Your task to perform on an android device: turn vacation reply on in the gmail app Image 0: 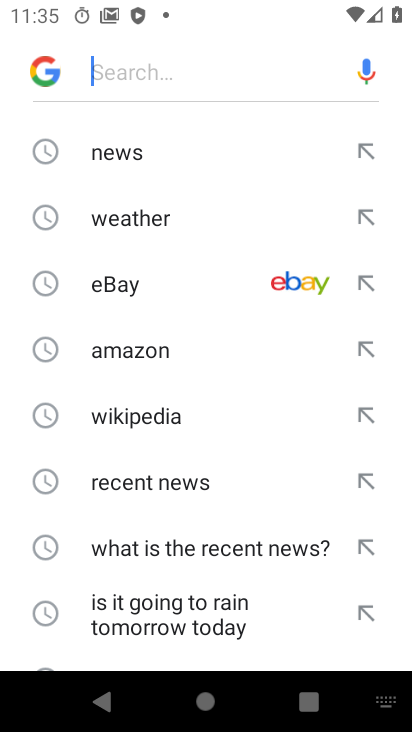
Step 0: press home button
Your task to perform on an android device: turn vacation reply on in the gmail app Image 1: 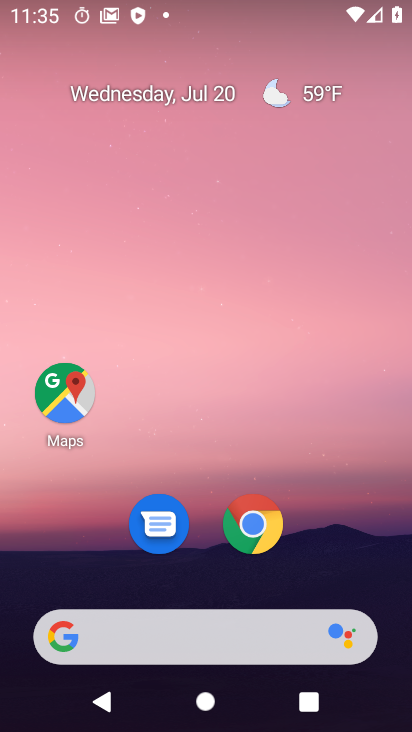
Step 1: drag from (225, 606) to (336, 130)
Your task to perform on an android device: turn vacation reply on in the gmail app Image 2: 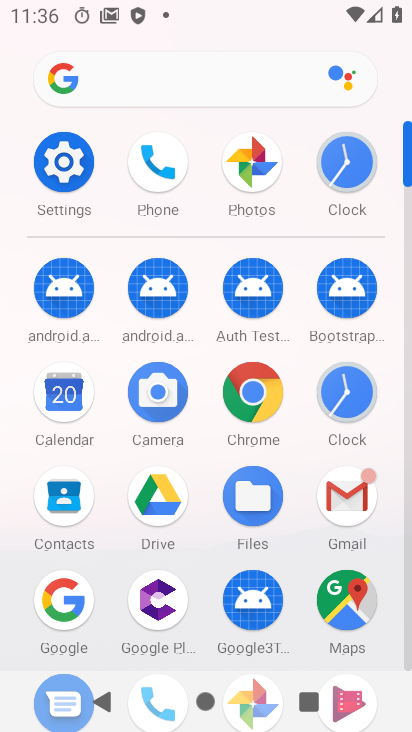
Step 2: click (351, 492)
Your task to perform on an android device: turn vacation reply on in the gmail app Image 3: 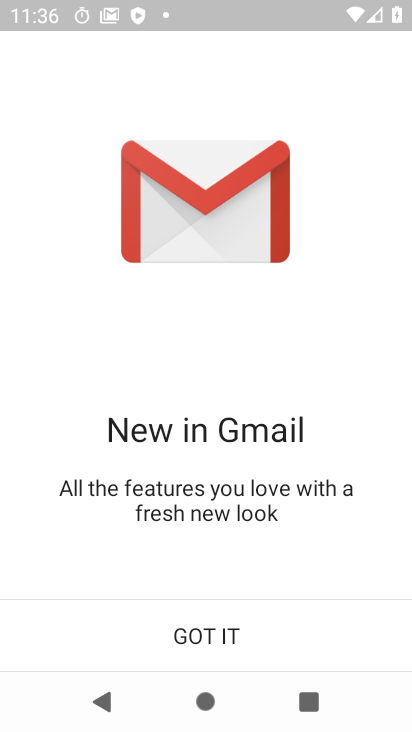
Step 3: click (200, 636)
Your task to perform on an android device: turn vacation reply on in the gmail app Image 4: 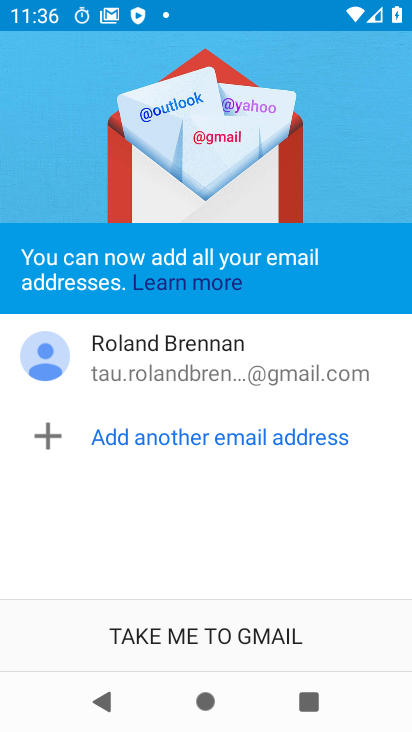
Step 4: click (200, 636)
Your task to perform on an android device: turn vacation reply on in the gmail app Image 5: 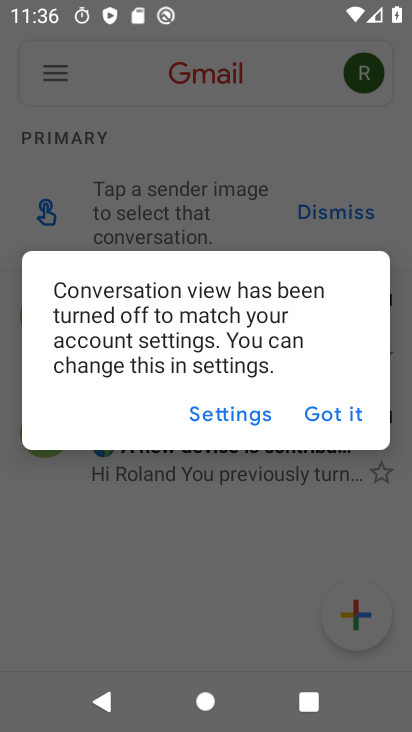
Step 5: click (329, 404)
Your task to perform on an android device: turn vacation reply on in the gmail app Image 6: 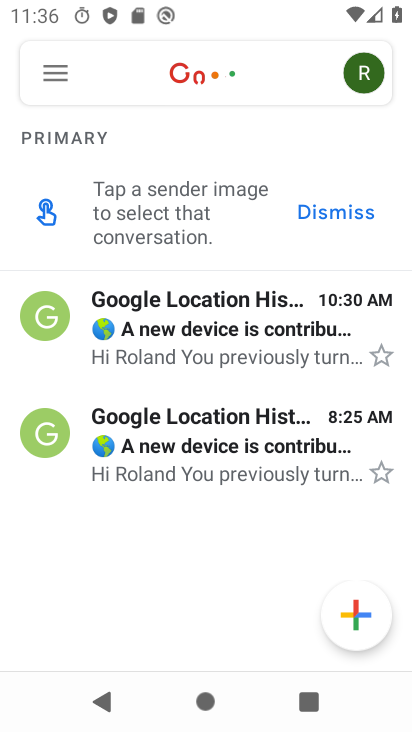
Step 6: click (61, 71)
Your task to perform on an android device: turn vacation reply on in the gmail app Image 7: 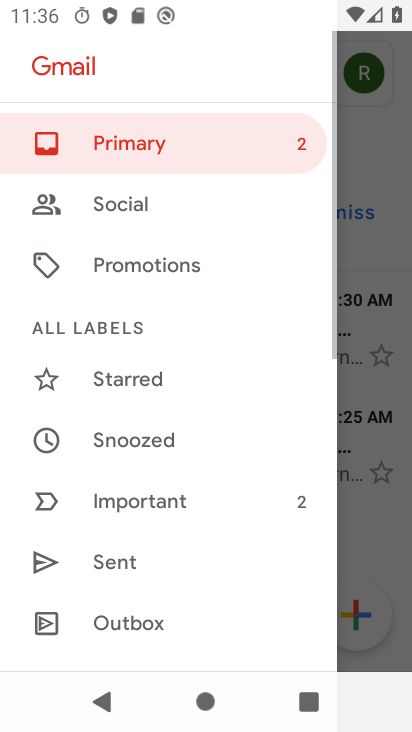
Step 7: drag from (240, 618) to (252, 64)
Your task to perform on an android device: turn vacation reply on in the gmail app Image 8: 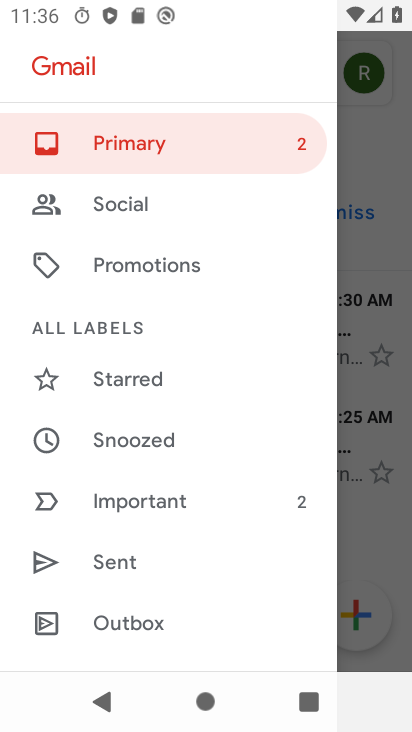
Step 8: drag from (159, 599) to (291, 120)
Your task to perform on an android device: turn vacation reply on in the gmail app Image 9: 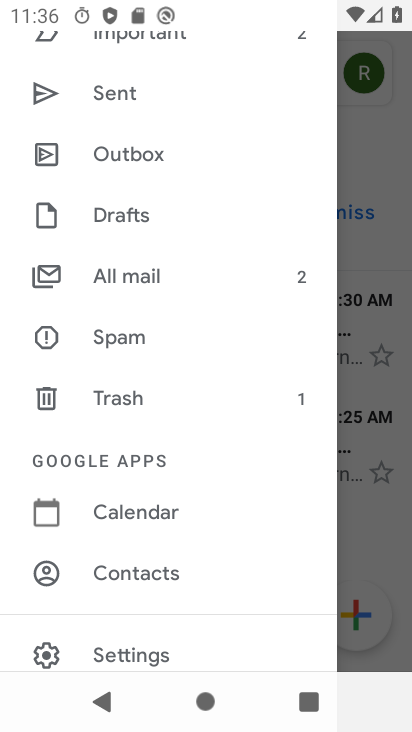
Step 9: click (161, 658)
Your task to perform on an android device: turn vacation reply on in the gmail app Image 10: 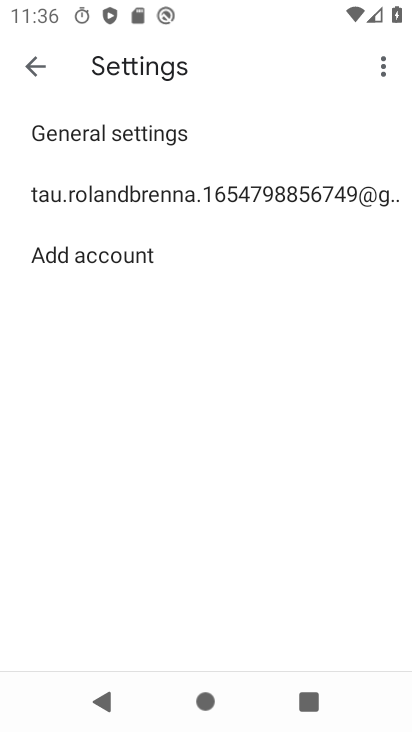
Step 10: click (256, 182)
Your task to perform on an android device: turn vacation reply on in the gmail app Image 11: 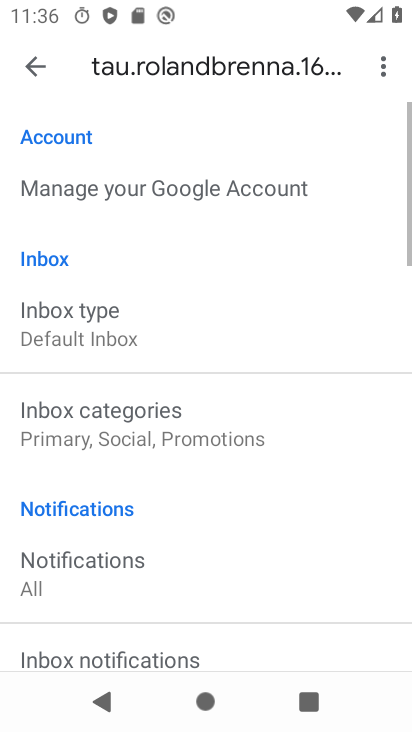
Step 11: drag from (193, 584) to (306, 47)
Your task to perform on an android device: turn vacation reply on in the gmail app Image 12: 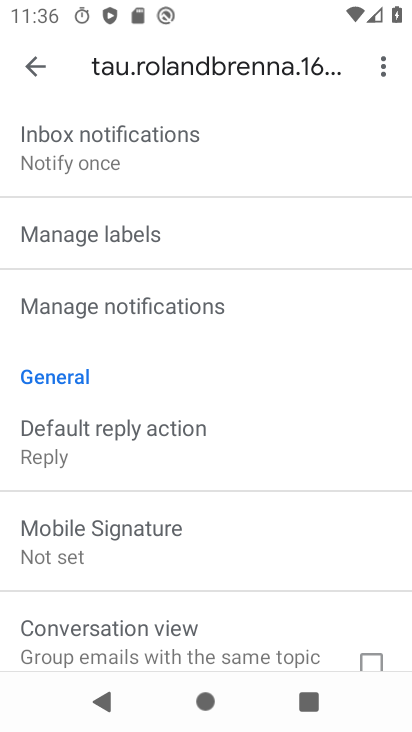
Step 12: drag from (250, 583) to (351, 122)
Your task to perform on an android device: turn vacation reply on in the gmail app Image 13: 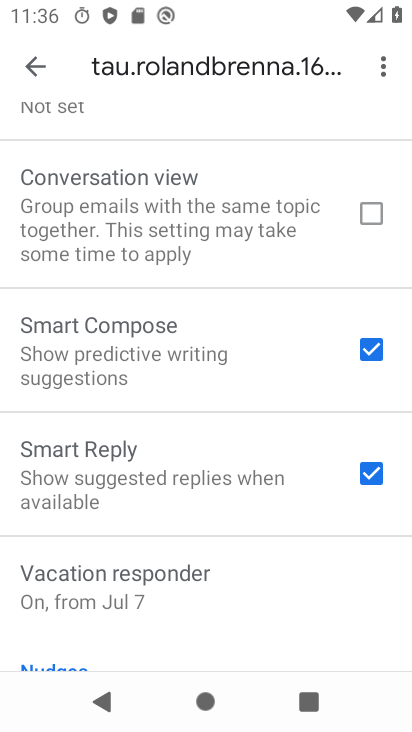
Step 13: click (187, 587)
Your task to perform on an android device: turn vacation reply on in the gmail app Image 14: 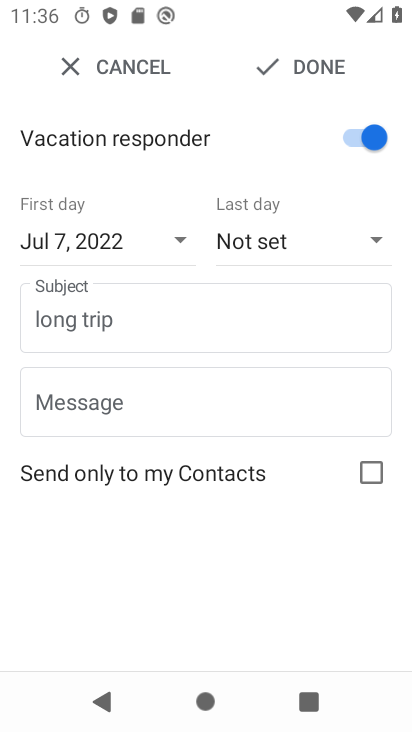
Step 14: task complete